Your task to perform on an android device: turn on the 12-hour format for clock Image 0: 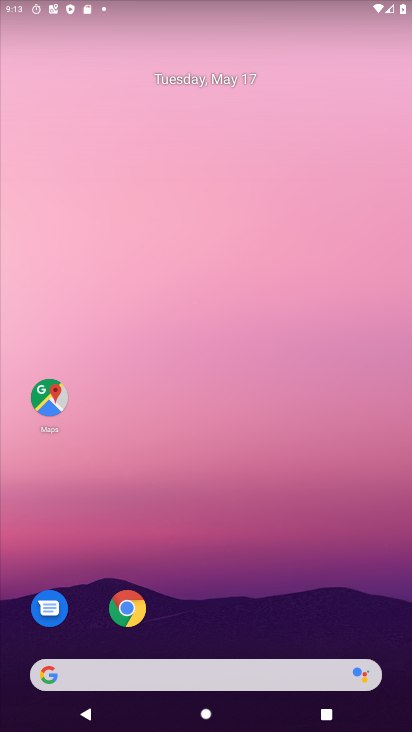
Step 0: drag from (282, 595) to (232, 177)
Your task to perform on an android device: turn on the 12-hour format for clock Image 1: 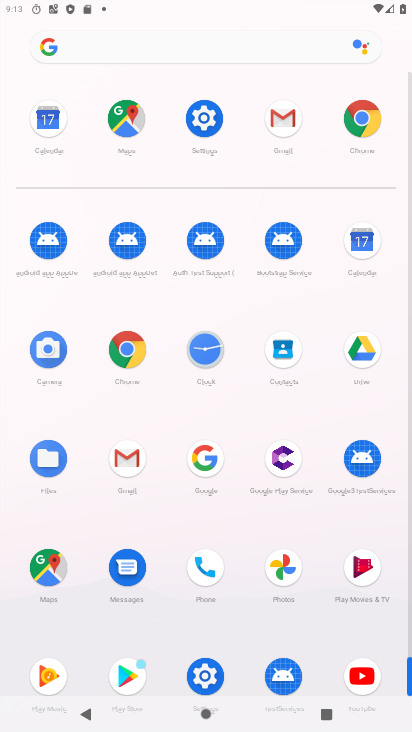
Step 1: click (200, 129)
Your task to perform on an android device: turn on the 12-hour format for clock Image 2: 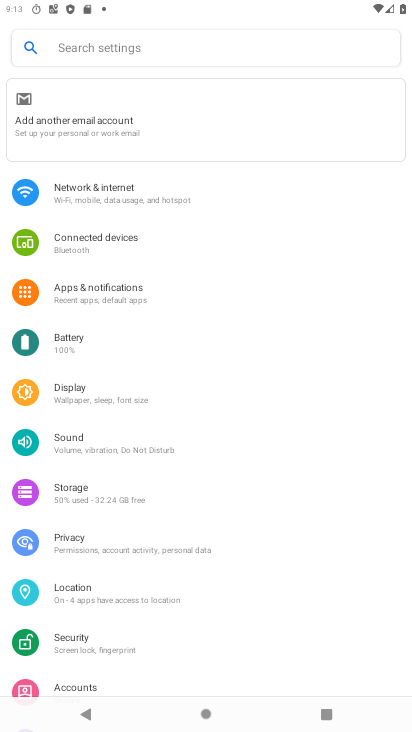
Step 2: press home button
Your task to perform on an android device: turn on the 12-hour format for clock Image 3: 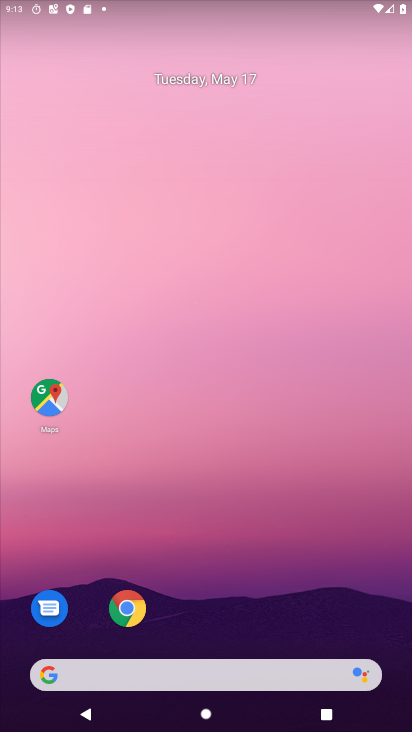
Step 3: drag from (359, 588) to (309, 153)
Your task to perform on an android device: turn on the 12-hour format for clock Image 4: 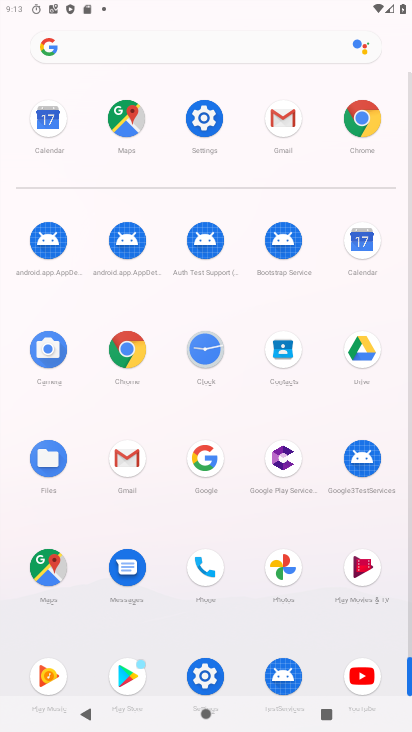
Step 4: click (213, 357)
Your task to perform on an android device: turn on the 12-hour format for clock Image 5: 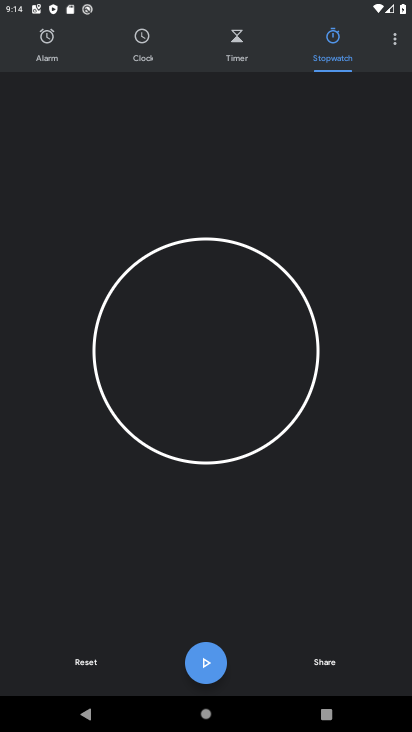
Step 5: click (388, 43)
Your task to perform on an android device: turn on the 12-hour format for clock Image 6: 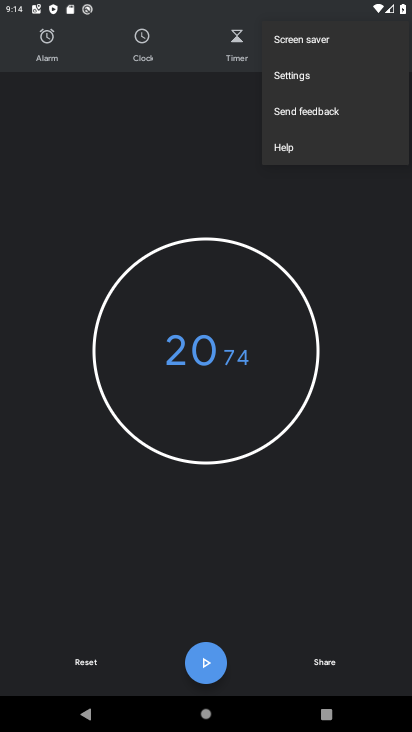
Step 6: click (302, 83)
Your task to perform on an android device: turn on the 12-hour format for clock Image 7: 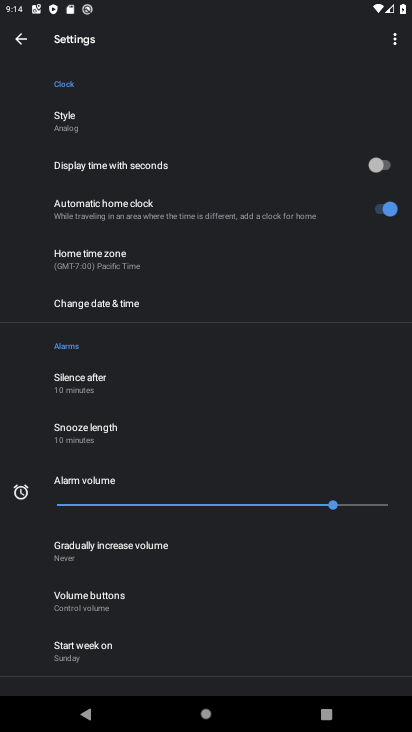
Step 7: click (152, 297)
Your task to perform on an android device: turn on the 12-hour format for clock Image 8: 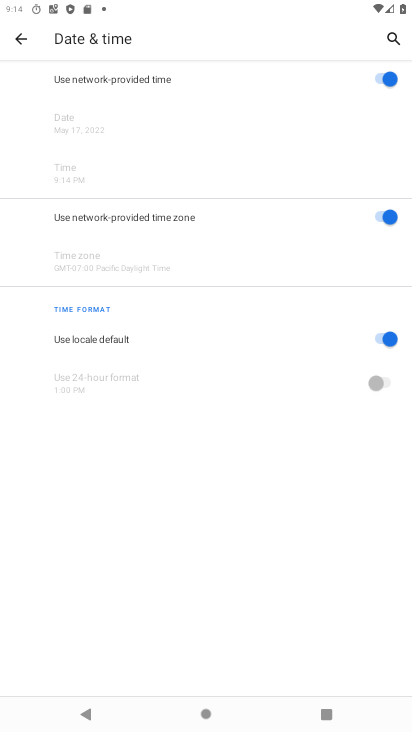
Step 8: task complete